Your task to perform on an android device: allow notifications from all sites in the chrome app Image 0: 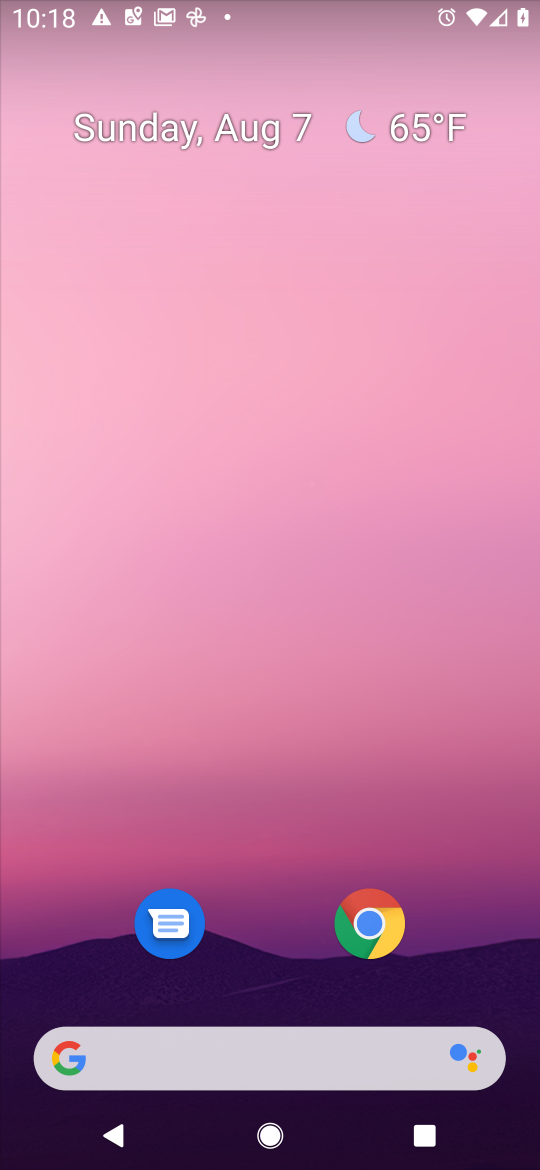
Step 0: drag from (491, 983) to (216, 70)
Your task to perform on an android device: allow notifications from all sites in the chrome app Image 1: 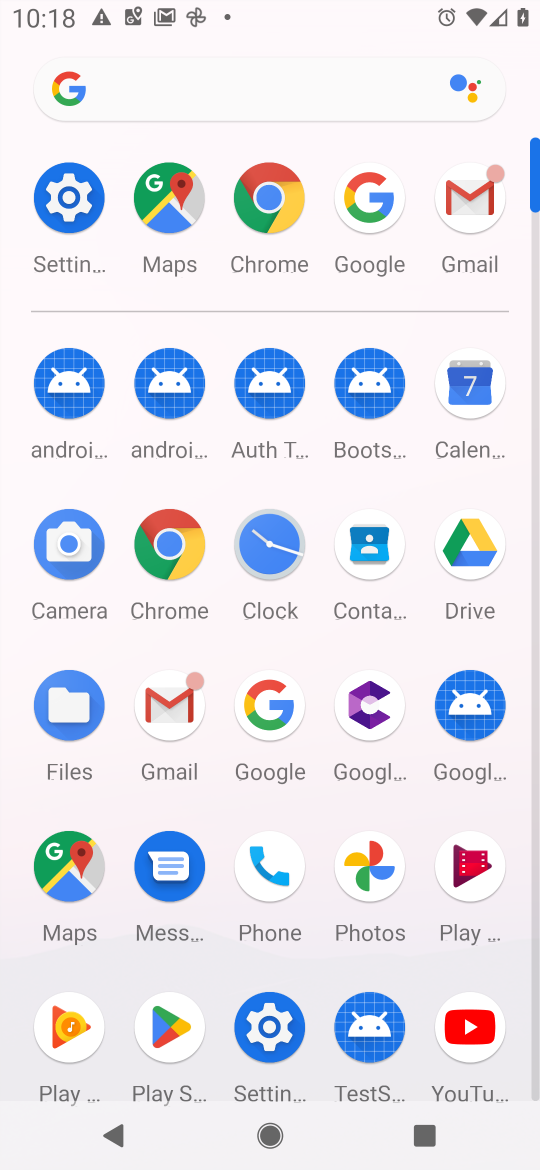
Step 1: click (167, 559)
Your task to perform on an android device: allow notifications from all sites in the chrome app Image 2: 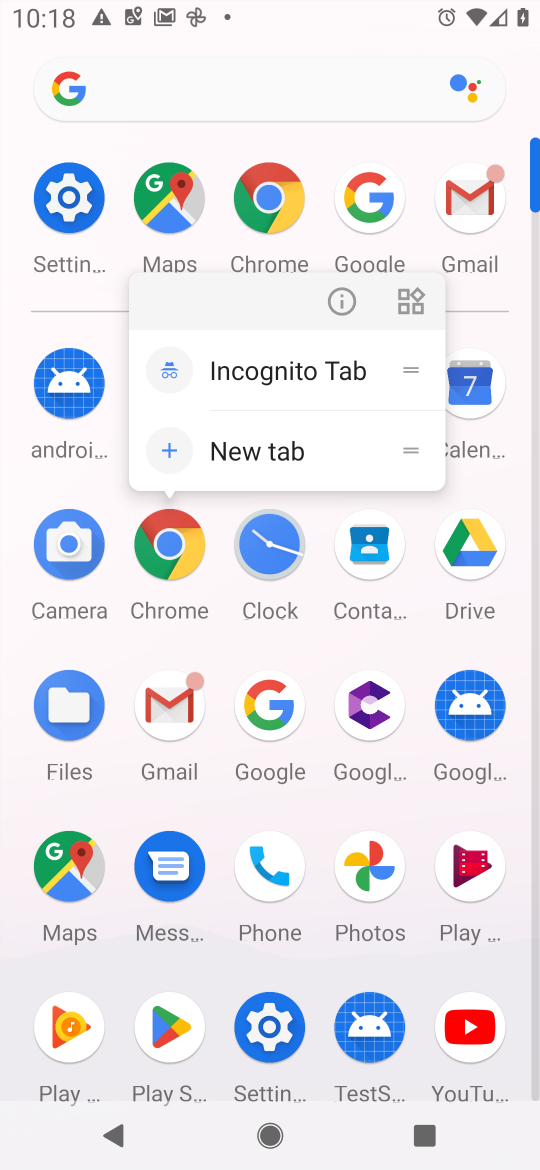
Step 2: click (165, 558)
Your task to perform on an android device: allow notifications from all sites in the chrome app Image 3: 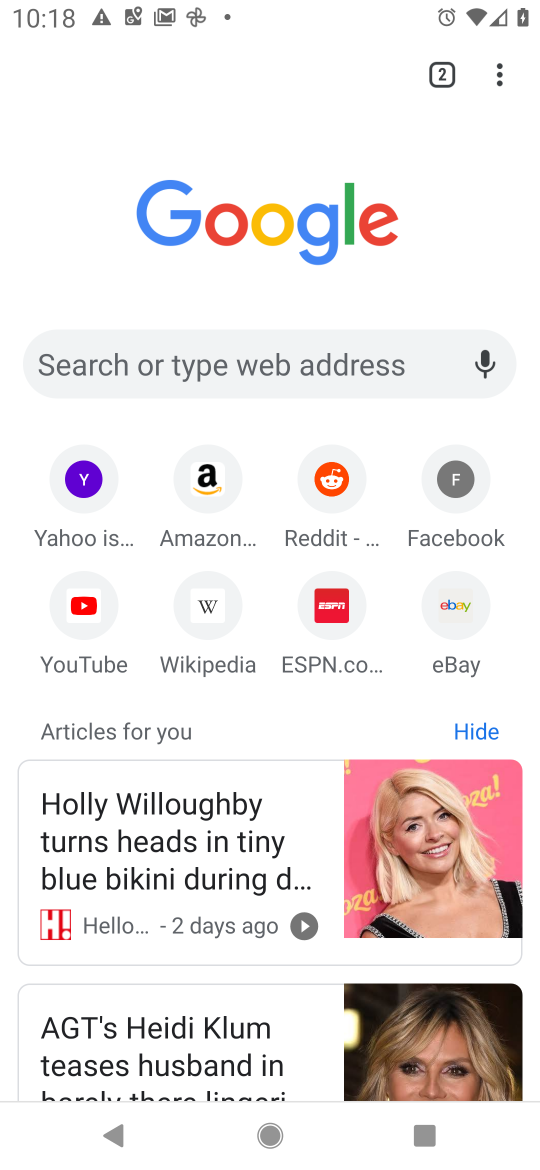
Step 3: click (498, 77)
Your task to perform on an android device: allow notifications from all sites in the chrome app Image 4: 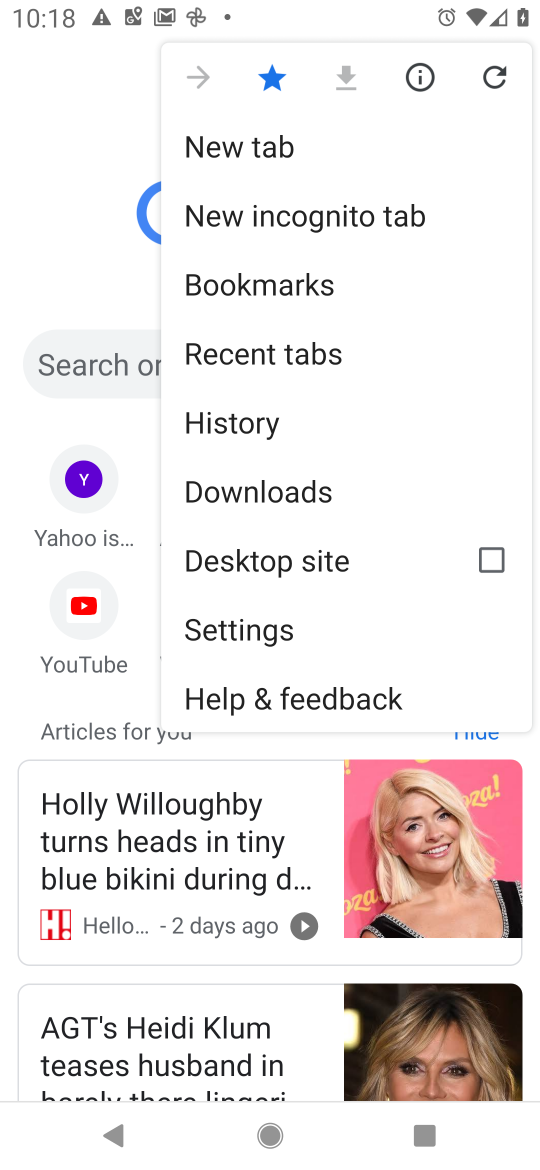
Step 4: click (292, 640)
Your task to perform on an android device: allow notifications from all sites in the chrome app Image 5: 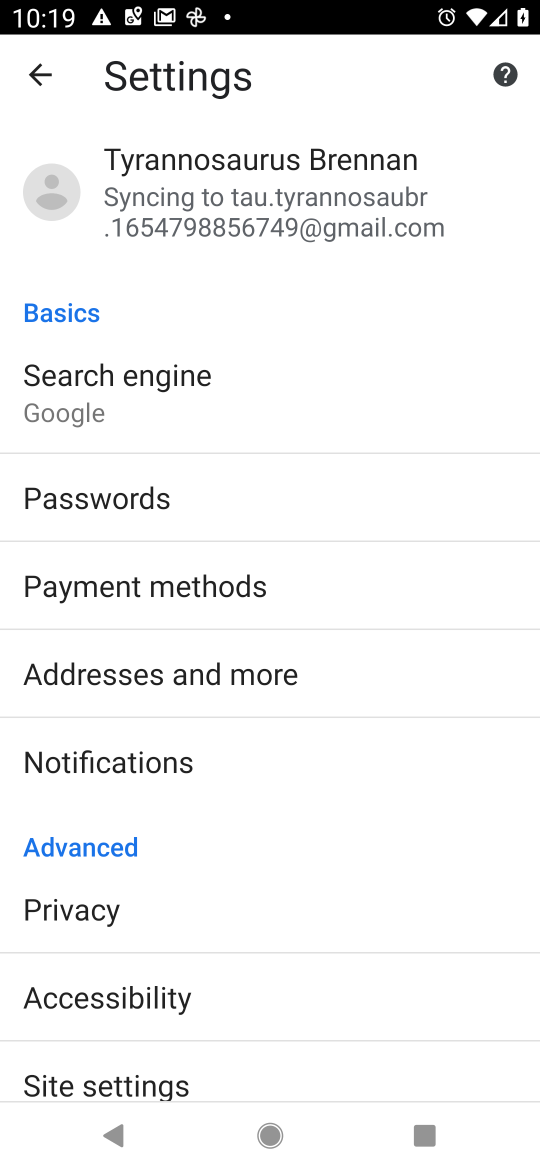
Step 5: click (125, 775)
Your task to perform on an android device: allow notifications from all sites in the chrome app Image 6: 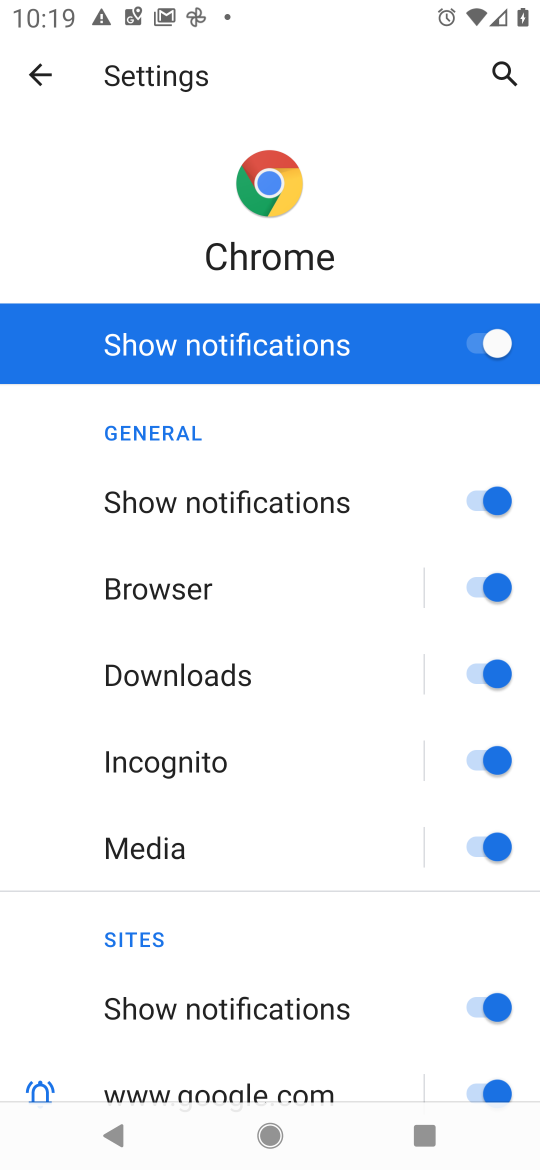
Step 6: task complete